Your task to perform on an android device: See recent photos Image 0: 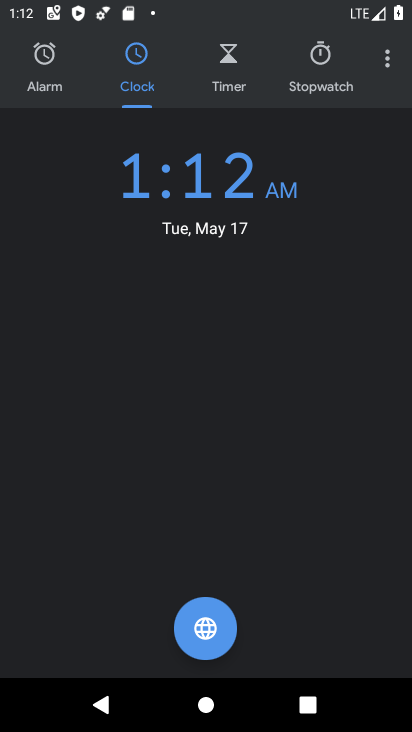
Step 0: press home button
Your task to perform on an android device: See recent photos Image 1: 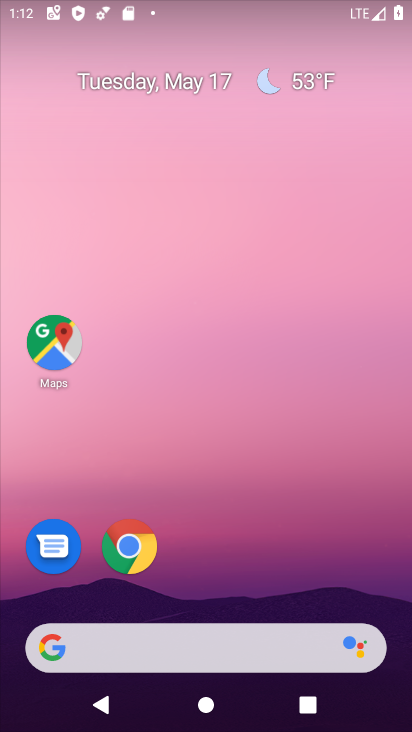
Step 1: drag from (210, 576) to (206, 247)
Your task to perform on an android device: See recent photos Image 2: 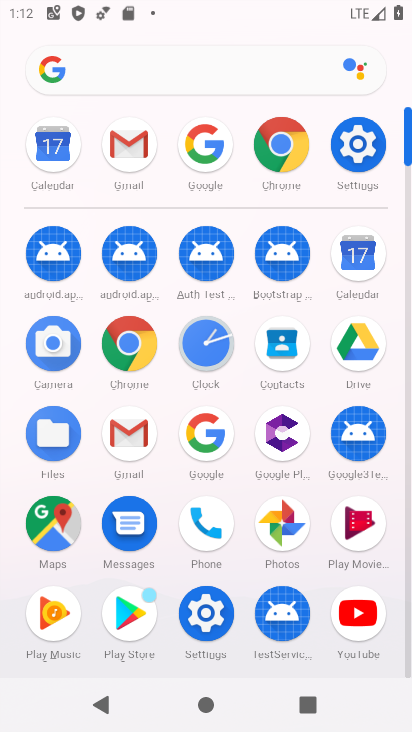
Step 2: click (201, 420)
Your task to perform on an android device: See recent photos Image 3: 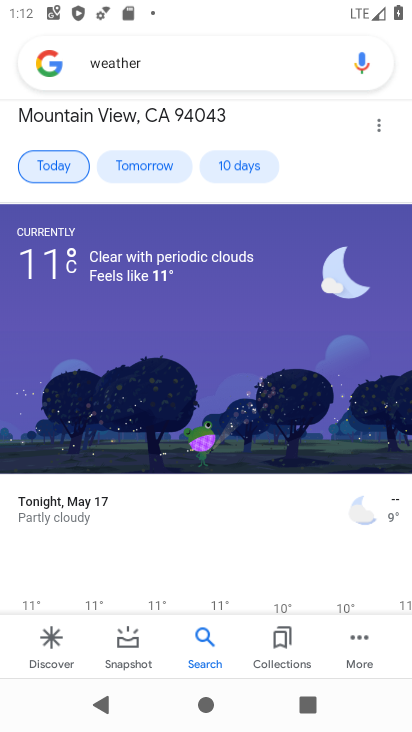
Step 3: click (222, 68)
Your task to perform on an android device: See recent photos Image 4: 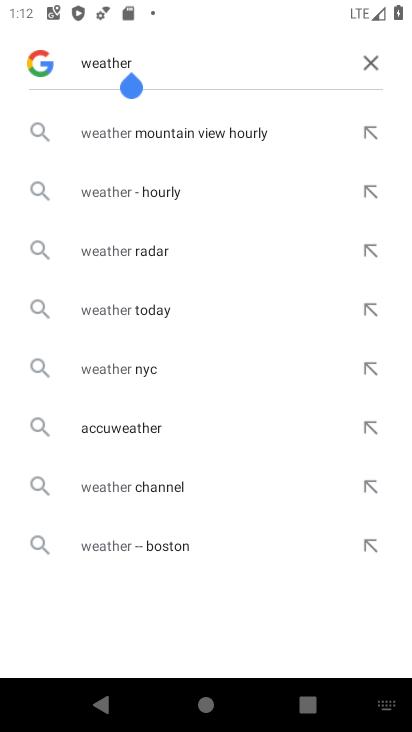
Step 4: click (371, 64)
Your task to perform on an android device: See recent photos Image 5: 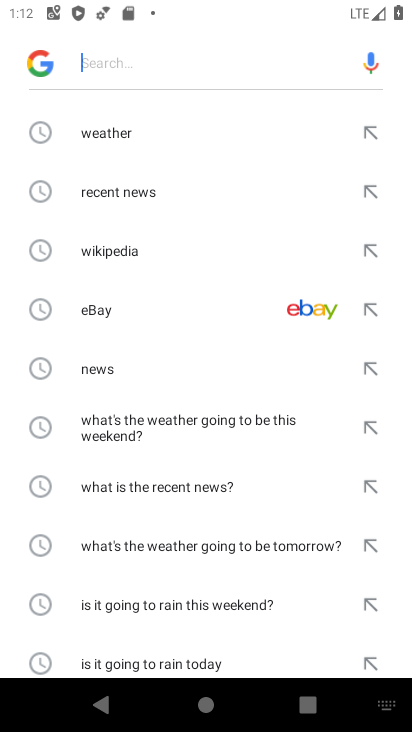
Step 5: click (121, 195)
Your task to perform on an android device: See recent photos Image 6: 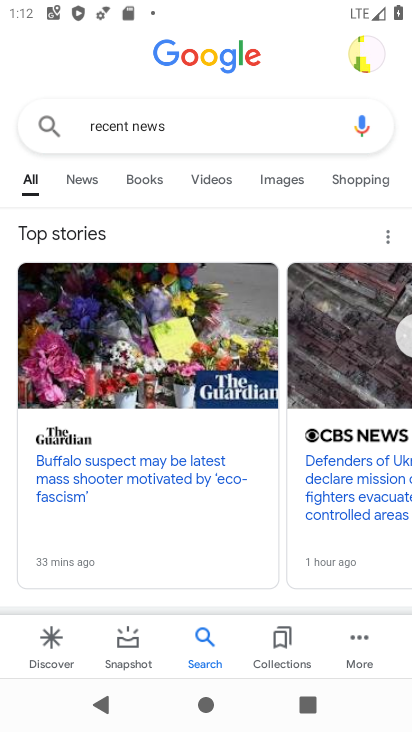
Step 6: click (80, 176)
Your task to perform on an android device: See recent photos Image 7: 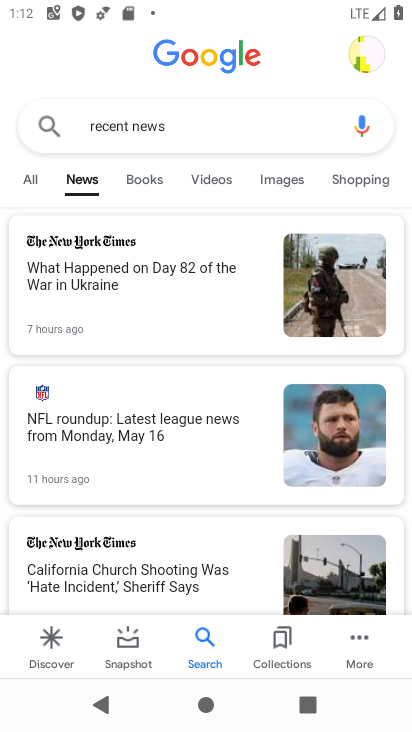
Step 7: task complete